Your task to perform on an android device: Open the Play Movies app and select the watchlist tab. Image 0: 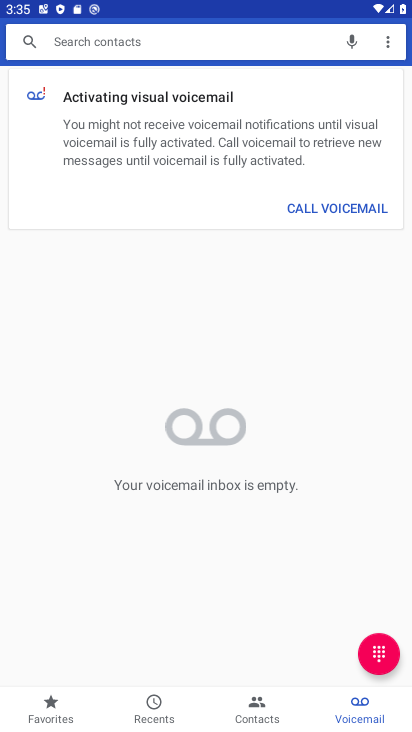
Step 0: press home button
Your task to perform on an android device: Open the Play Movies app and select the watchlist tab. Image 1: 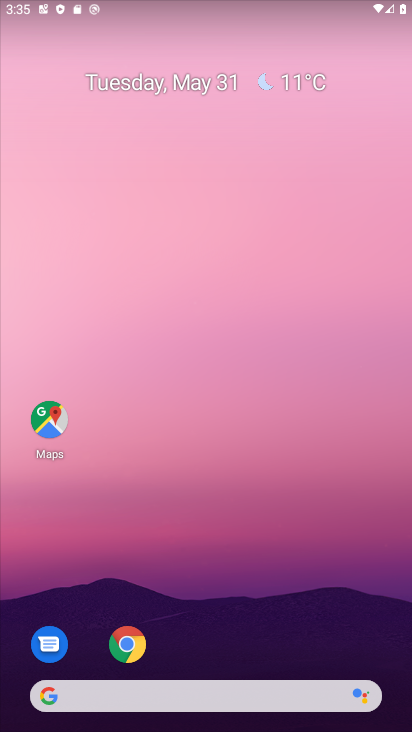
Step 1: drag from (226, 591) to (240, 225)
Your task to perform on an android device: Open the Play Movies app and select the watchlist tab. Image 2: 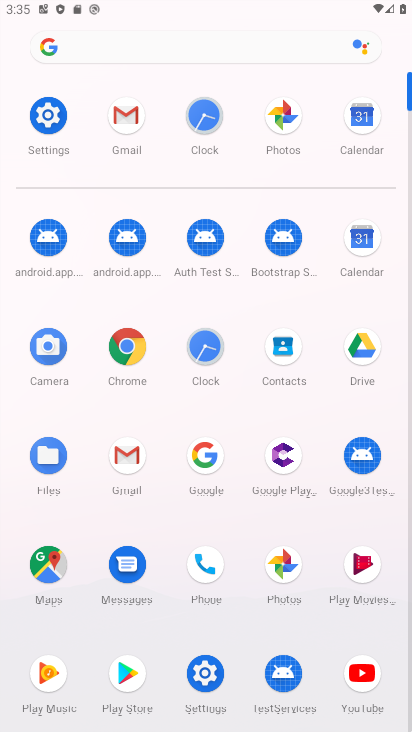
Step 2: click (366, 568)
Your task to perform on an android device: Open the Play Movies app and select the watchlist tab. Image 3: 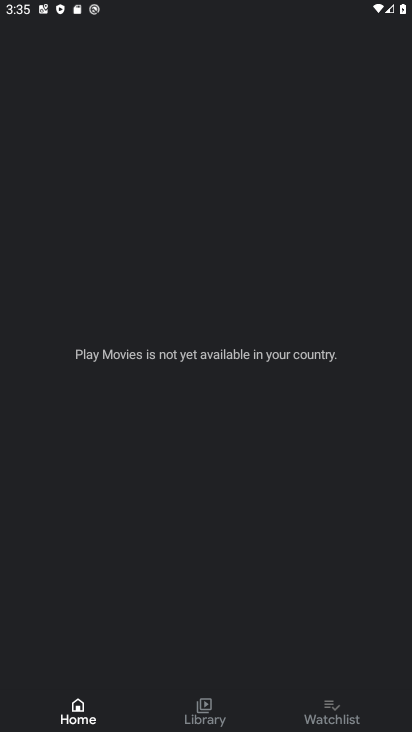
Step 3: click (340, 703)
Your task to perform on an android device: Open the Play Movies app and select the watchlist tab. Image 4: 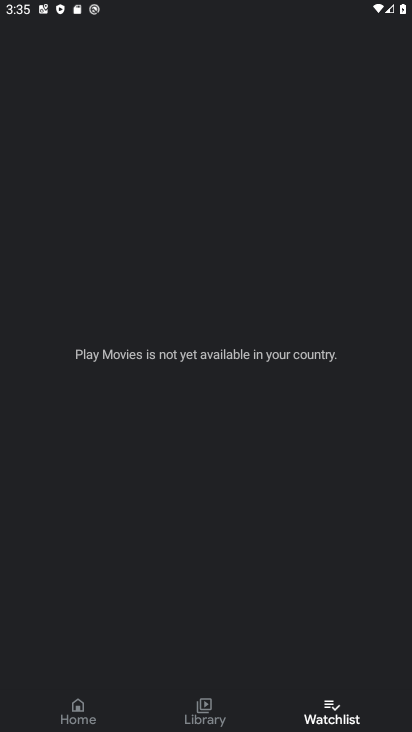
Step 4: task complete